Your task to perform on an android device: Go to Amazon Image 0: 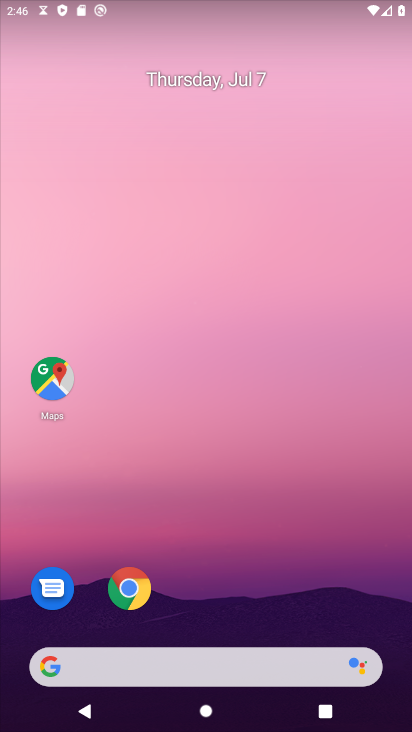
Step 0: click (130, 588)
Your task to perform on an android device: Go to Amazon Image 1: 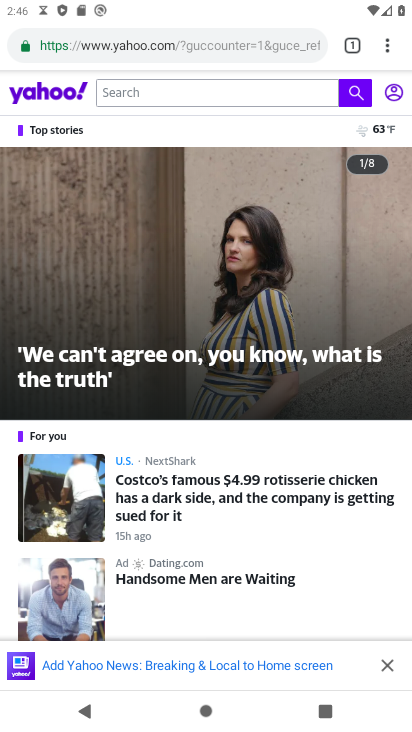
Step 1: click (295, 49)
Your task to perform on an android device: Go to Amazon Image 2: 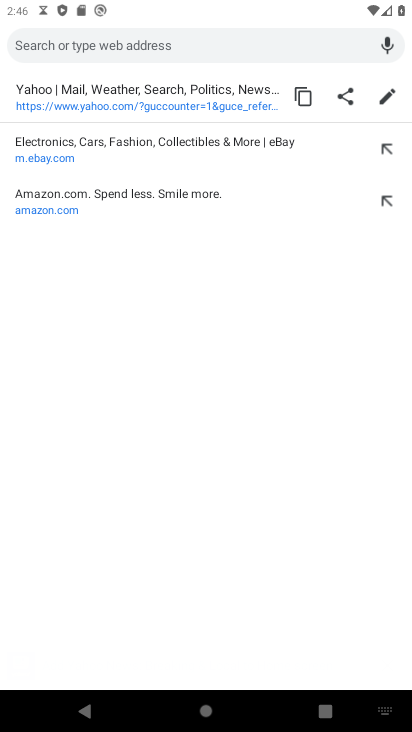
Step 2: click (202, 192)
Your task to perform on an android device: Go to Amazon Image 3: 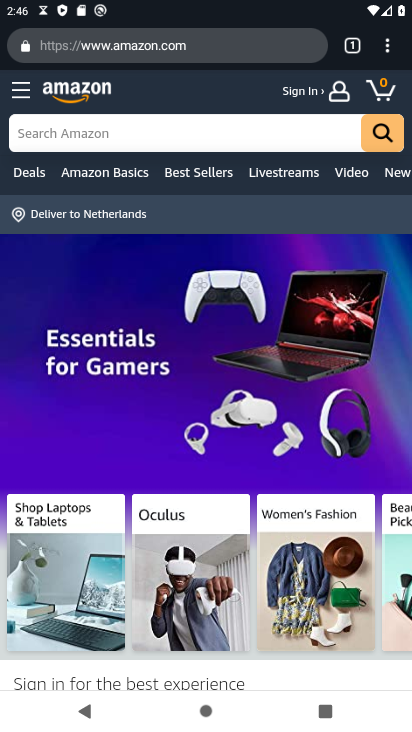
Step 3: task complete